Your task to perform on an android device: Open Google Maps and go to "Timeline" Image 0: 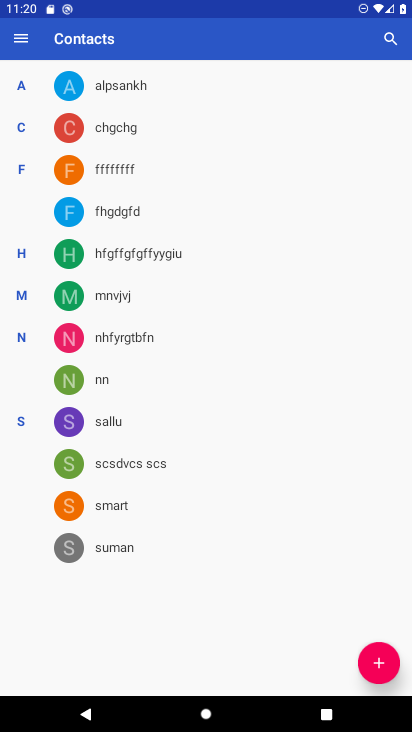
Step 0: press home button
Your task to perform on an android device: Open Google Maps and go to "Timeline" Image 1: 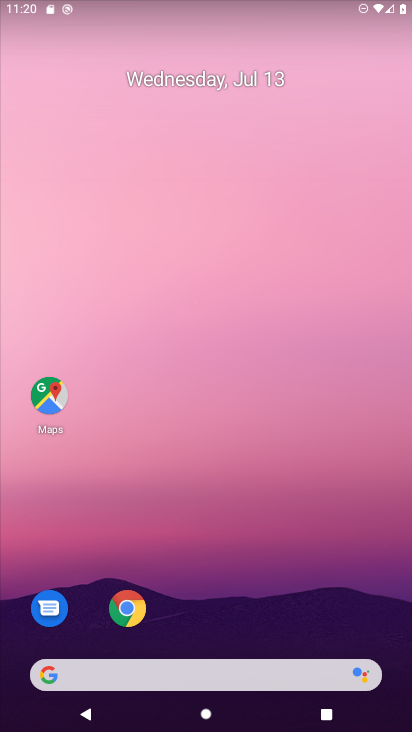
Step 1: click (54, 395)
Your task to perform on an android device: Open Google Maps and go to "Timeline" Image 2: 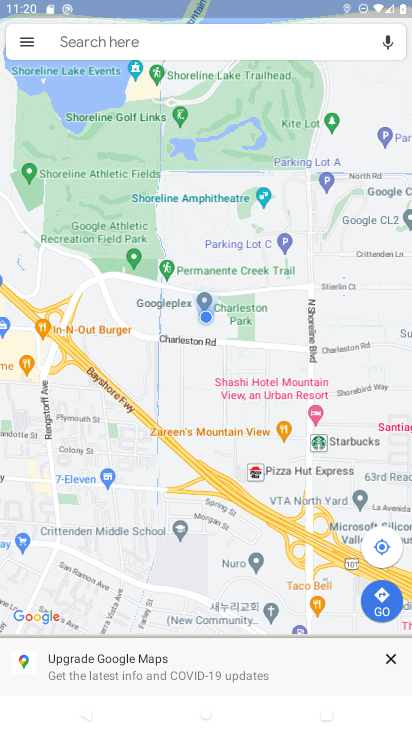
Step 2: click (27, 45)
Your task to perform on an android device: Open Google Maps and go to "Timeline" Image 3: 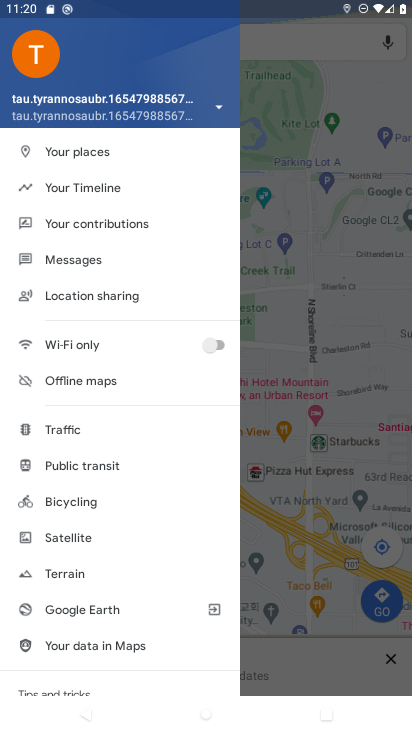
Step 3: click (72, 187)
Your task to perform on an android device: Open Google Maps and go to "Timeline" Image 4: 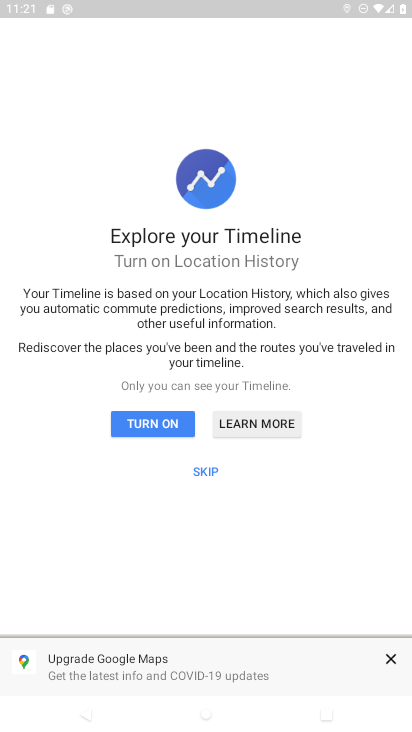
Step 4: click (201, 471)
Your task to perform on an android device: Open Google Maps and go to "Timeline" Image 5: 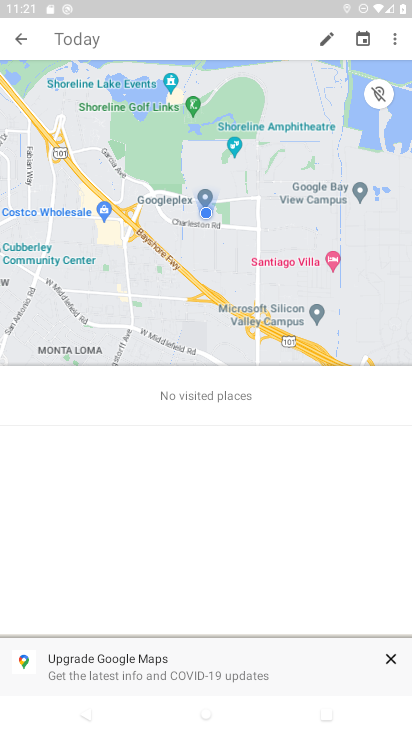
Step 5: task complete